Your task to perform on an android device: stop showing notifications on the lock screen Image 0: 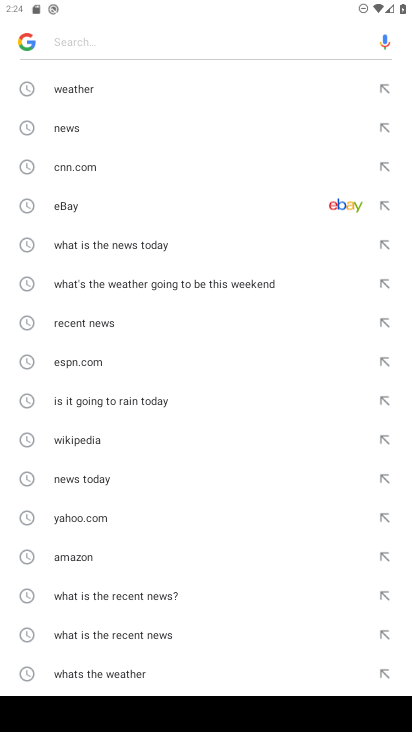
Step 0: press back button
Your task to perform on an android device: stop showing notifications on the lock screen Image 1: 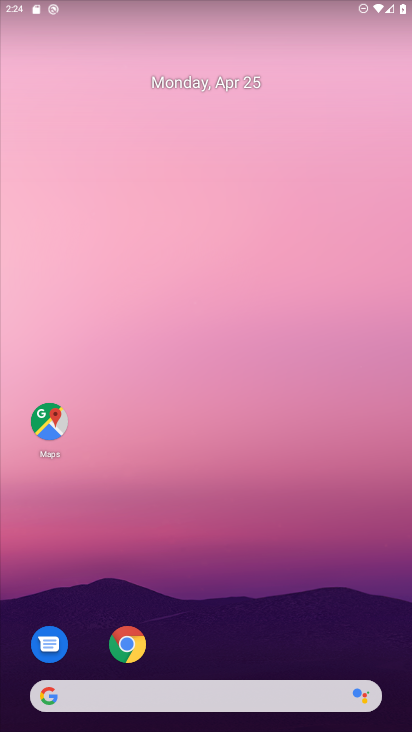
Step 1: drag from (211, 615) to (157, 300)
Your task to perform on an android device: stop showing notifications on the lock screen Image 2: 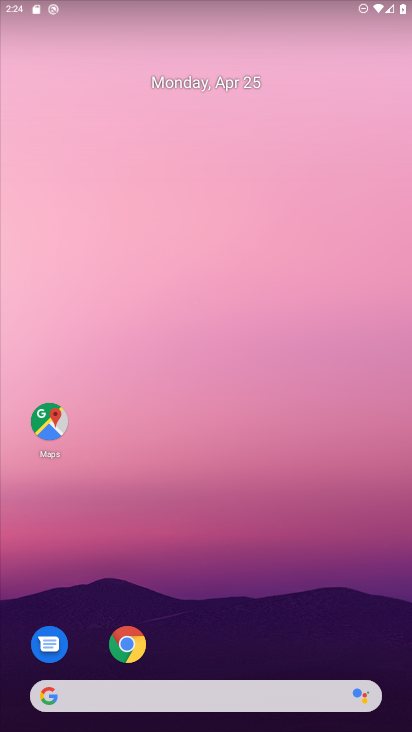
Step 2: drag from (241, 609) to (83, 66)
Your task to perform on an android device: stop showing notifications on the lock screen Image 3: 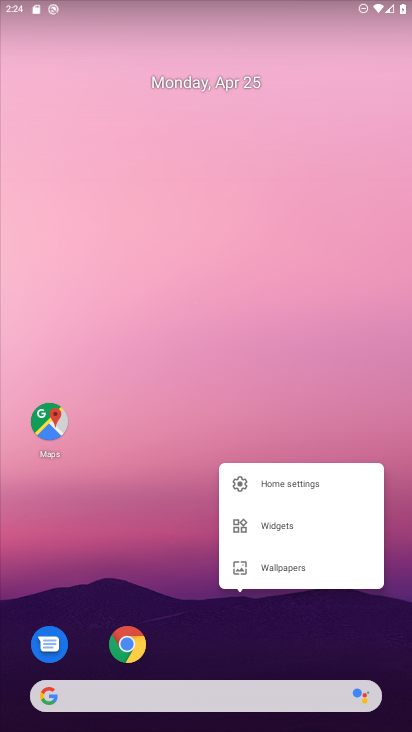
Step 3: click (126, 325)
Your task to perform on an android device: stop showing notifications on the lock screen Image 4: 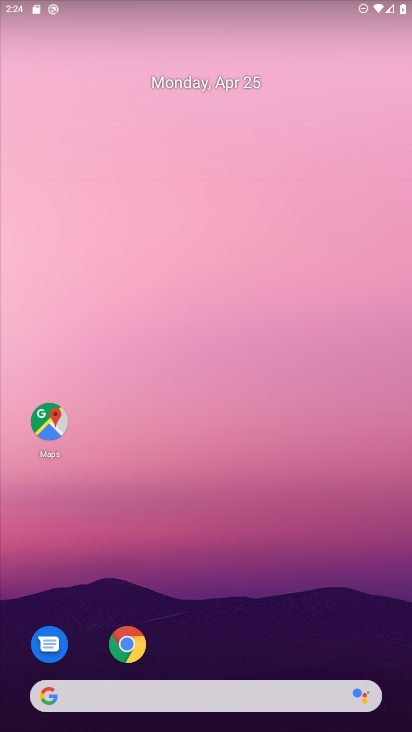
Step 4: drag from (229, 633) to (125, 23)
Your task to perform on an android device: stop showing notifications on the lock screen Image 5: 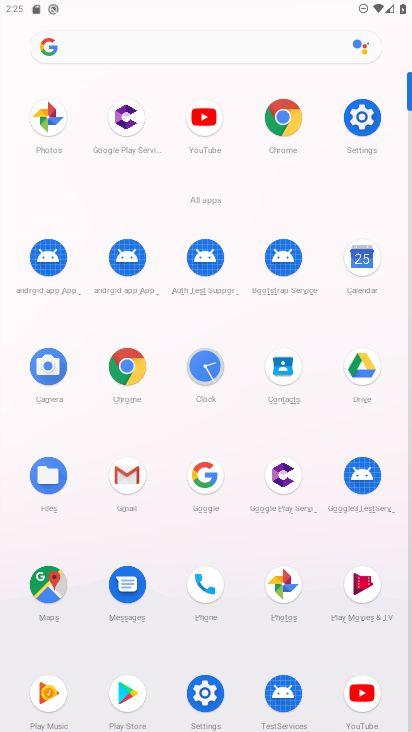
Step 5: click (352, 130)
Your task to perform on an android device: stop showing notifications on the lock screen Image 6: 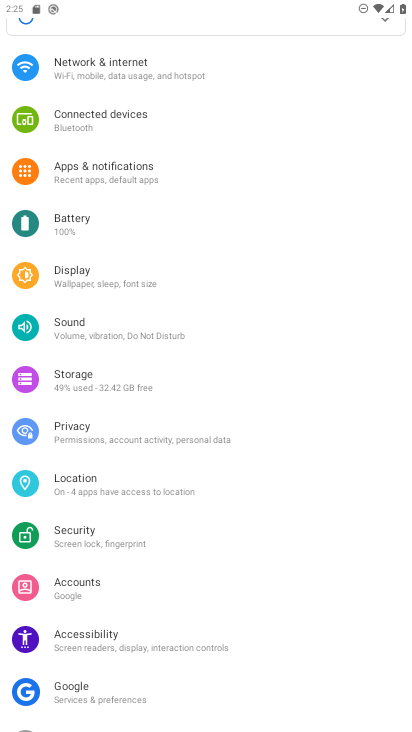
Step 6: click (216, 189)
Your task to perform on an android device: stop showing notifications on the lock screen Image 7: 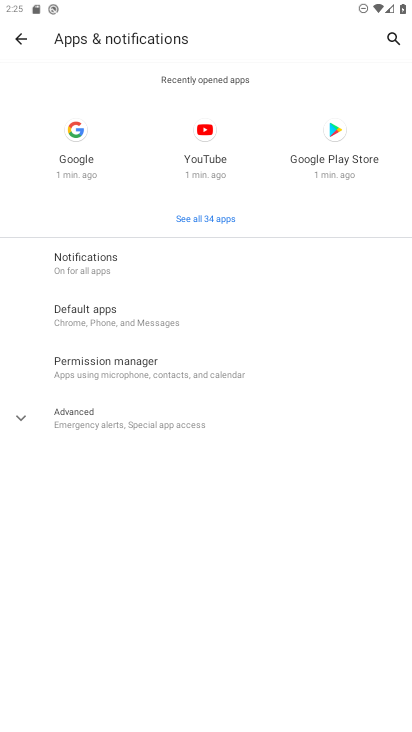
Step 7: click (212, 284)
Your task to perform on an android device: stop showing notifications on the lock screen Image 8: 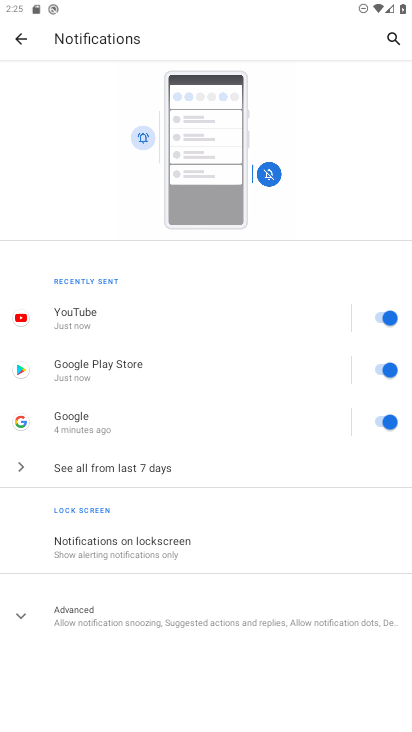
Step 8: click (265, 554)
Your task to perform on an android device: stop showing notifications on the lock screen Image 9: 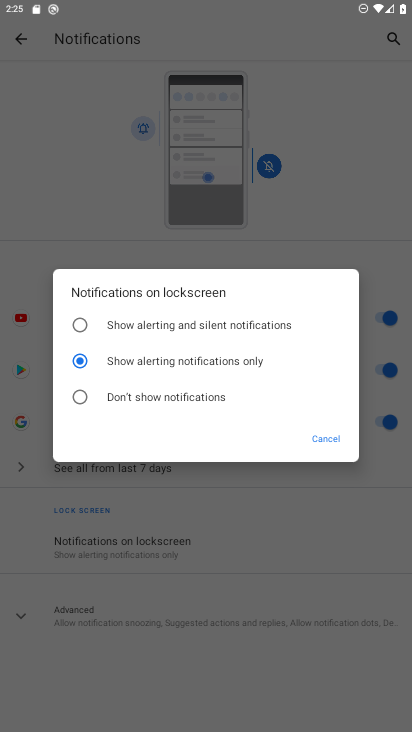
Step 9: click (207, 409)
Your task to perform on an android device: stop showing notifications on the lock screen Image 10: 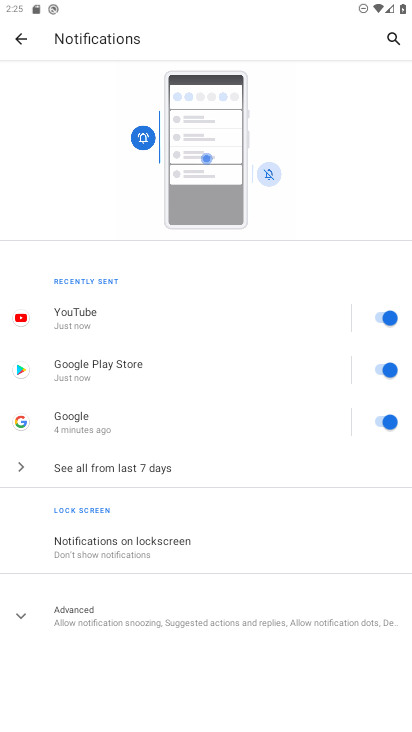
Step 10: task complete